Your task to perform on an android device: Open eBay Image 0: 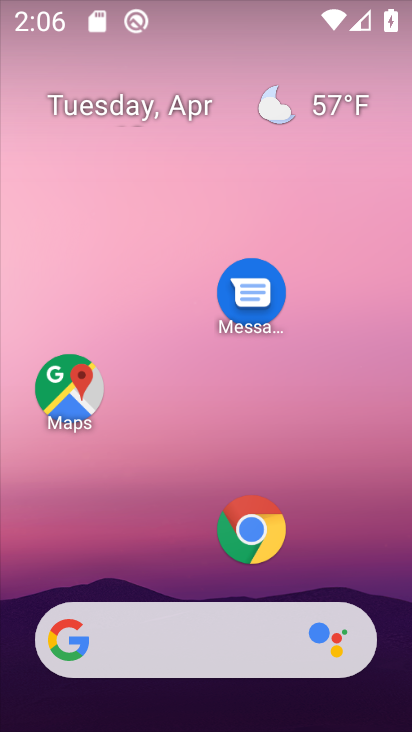
Step 0: drag from (180, 535) to (139, 250)
Your task to perform on an android device: Open eBay Image 1: 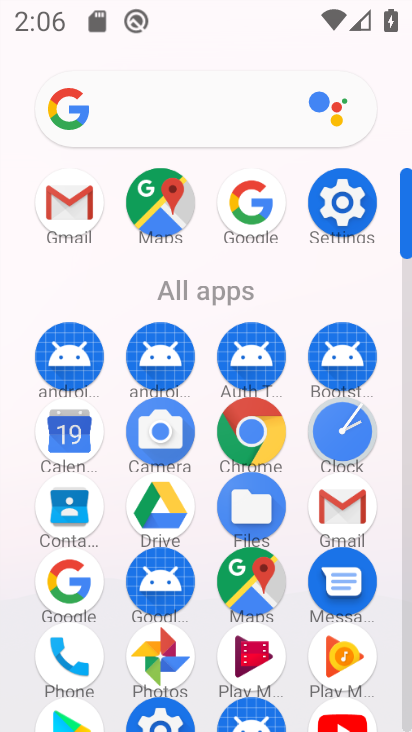
Step 1: click (72, 580)
Your task to perform on an android device: Open eBay Image 2: 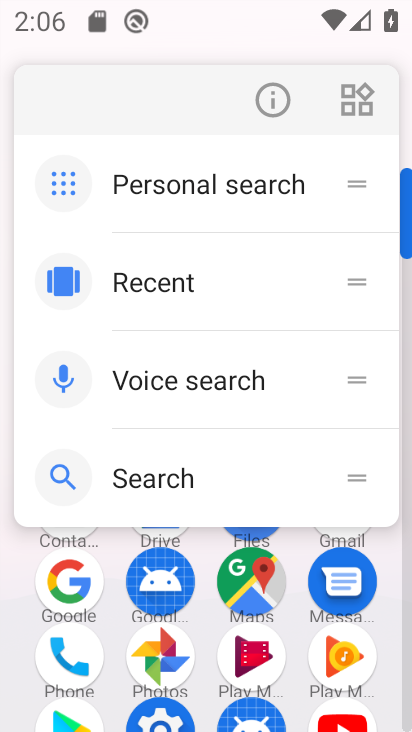
Step 2: click (72, 581)
Your task to perform on an android device: Open eBay Image 3: 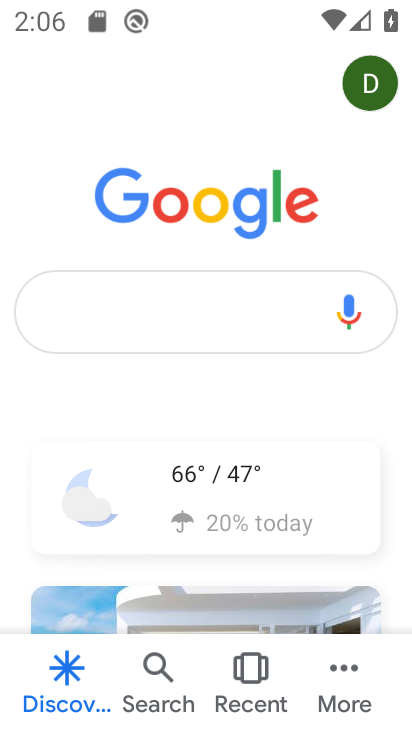
Step 3: click (191, 298)
Your task to perform on an android device: Open eBay Image 4: 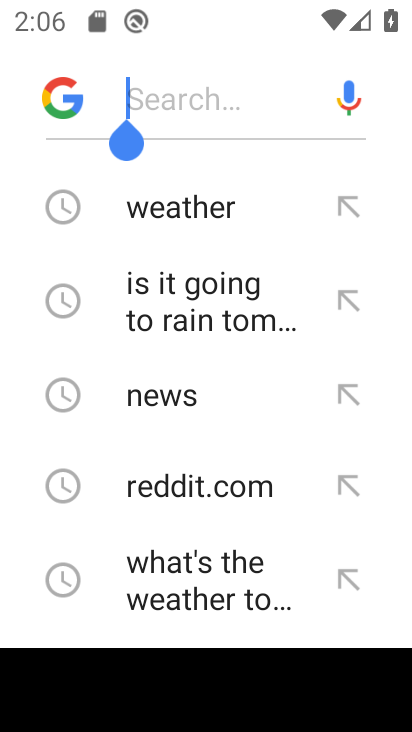
Step 4: drag from (218, 493) to (217, 246)
Your task to perform on an android device: Open eBay Image 5: 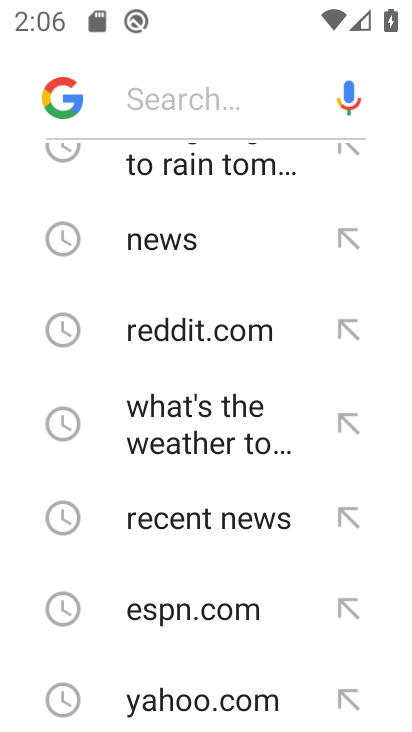
Step 5: type "ebay"
Your task to perform on an android device: Open eBay Image 6: 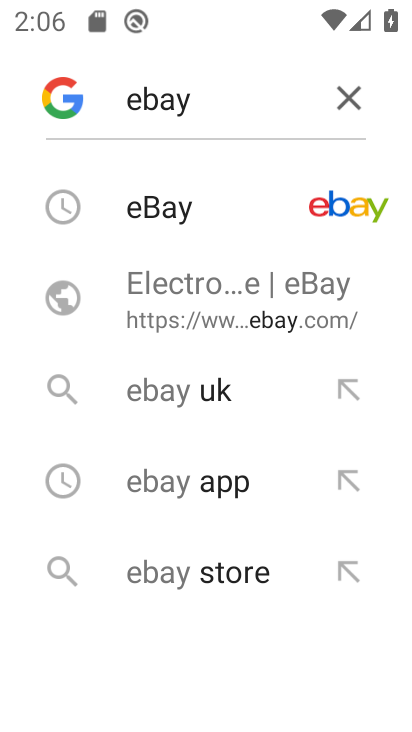
Step 6: click (163, 210)
Your task to perform on an android device: Open eBay Image 7: 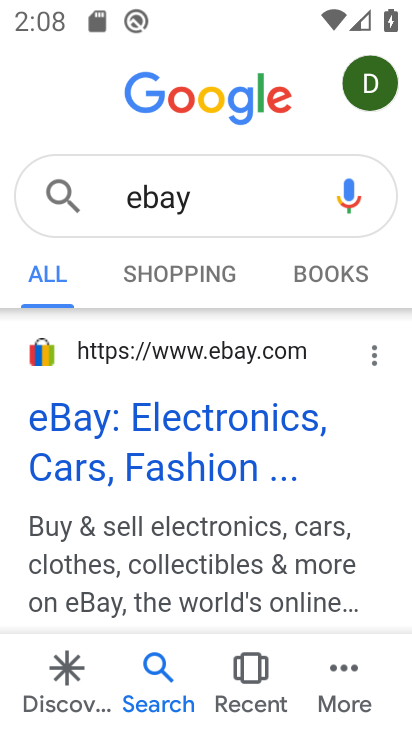
Step 7: task complete